Your task to perform on an android device: toggle airplane mode Image 0: 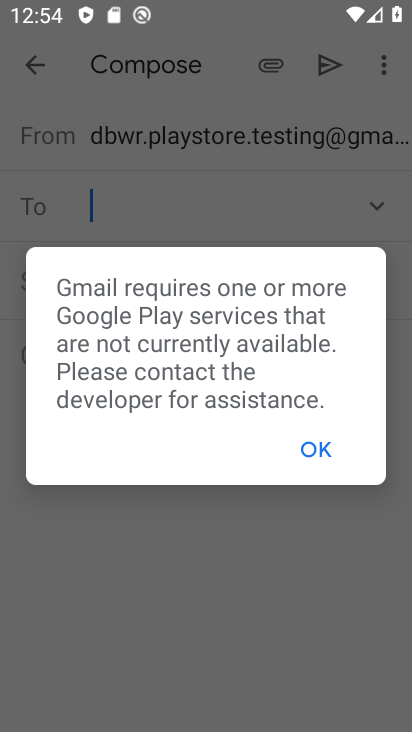
Step 0: drag from (337, 13) to (270, 606)
Your task to perform on an android device: toggle airplane mode Image 1: 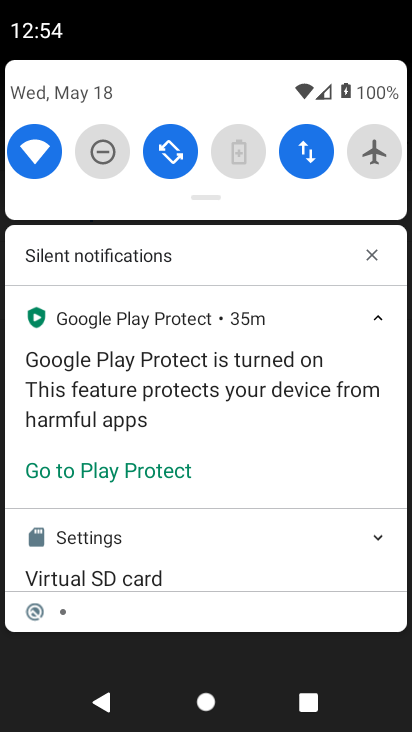
Step 1: click (368, 158)
Your task to perform on an android device: toggle airplane mode Image 2: 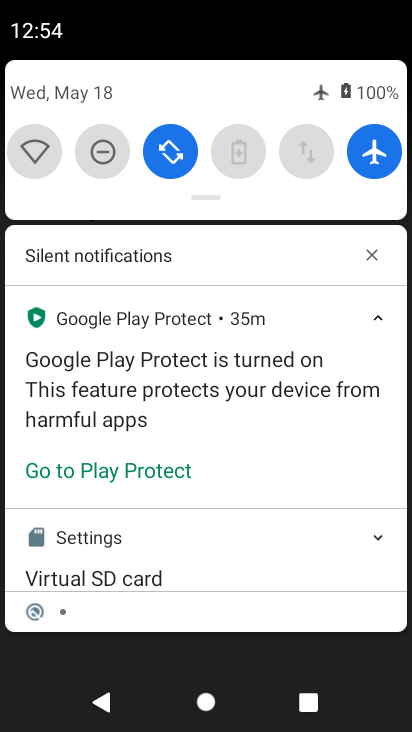
Step 2: task complete